Your task to perform on an android device: Open calendar and show me the second week of next month Image 0: 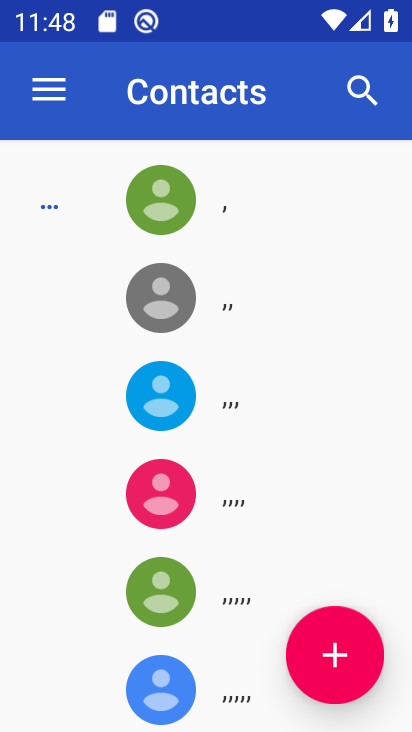
Step 0: press home button
Your task to perform on an android device: Open calendar and show me the second week of next month Image 1: 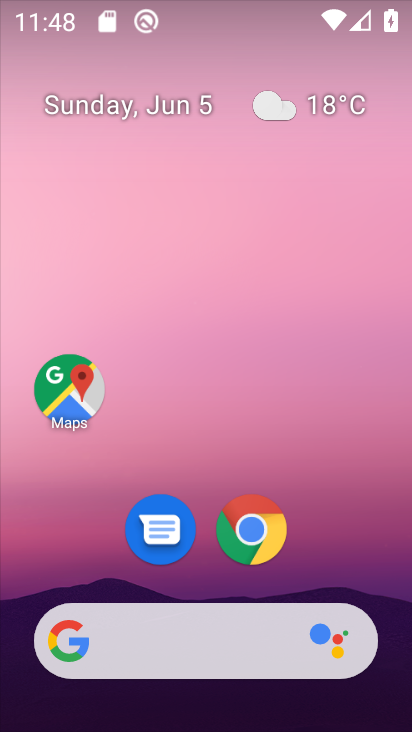
Step 1: drag from (343, 563) to (263, 30)
Your task to perform on an android device: Open calendar and show me the second week of next month Image 2: 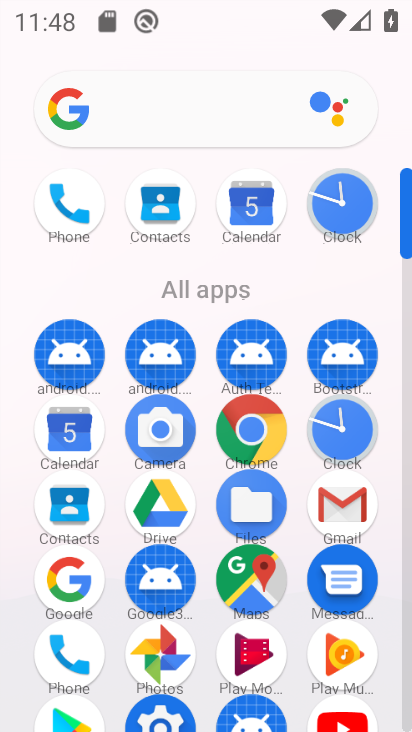
Step 2: click (248, 207)
Your task to perform on an android device: Open calendar and show me the second week of next month Image 3: 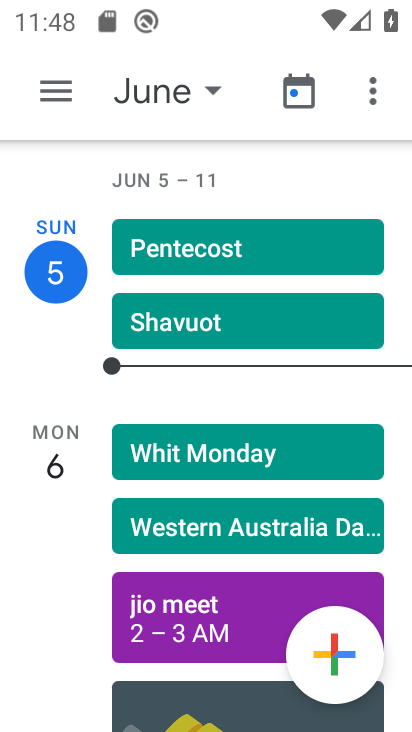
Step 3: click (142, 87)
Your task to perform on an android device: Open calendar and show me the second week of next month Image 4: 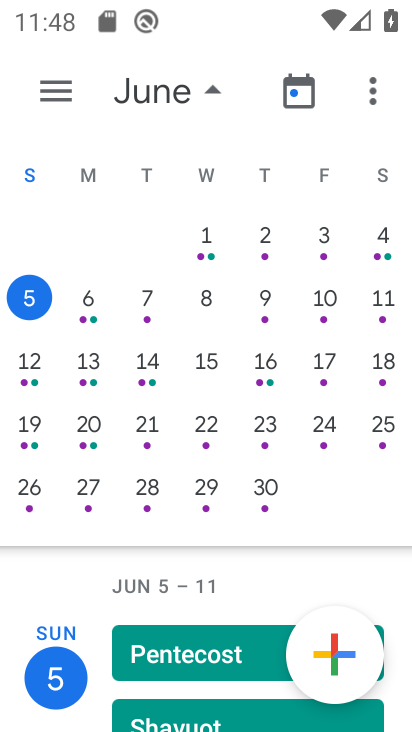
Step 4: drag from (383, 285) to (0, 351)
Your task to perform on an android device: Open calendar and show me the second week of next month Image 5: 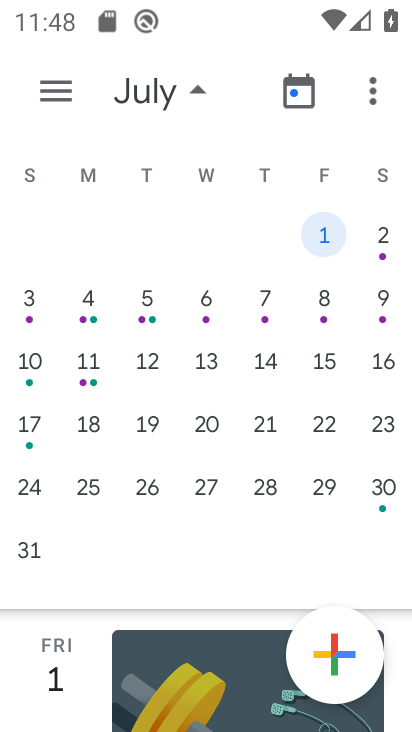
Step 5: click (38, 308)
Your task to perform on an android device: Open calendar and show me the second week of next month Image 6: 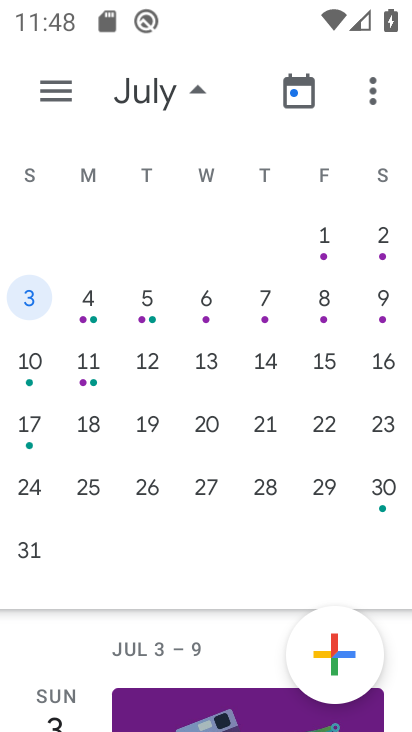
Step 6: task complete